Your task to perform on an android device: read, delete, or share a saved page in the chrome app Image 0: 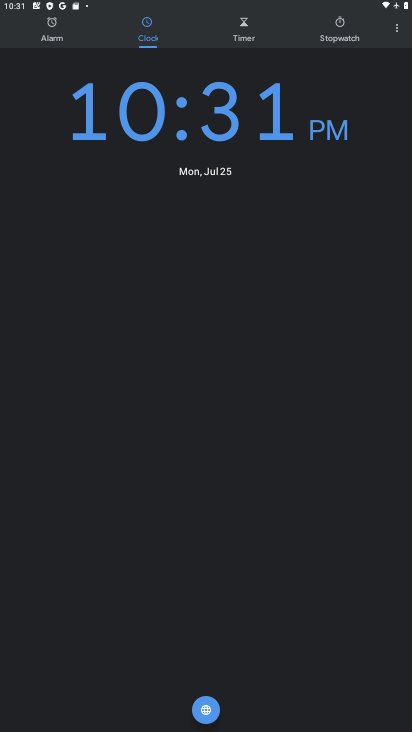
Step 0: press home button
Your task to perform on an android device: read, delete, or share a saved page in the chrome app Image 1: 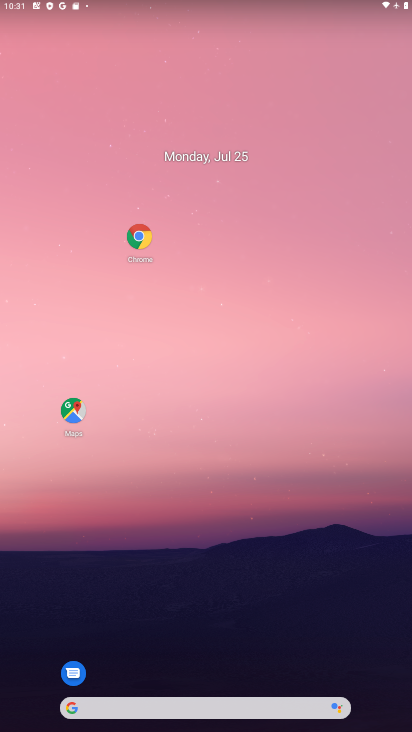
Step 1: click (129, 234)
Your task to perform on an android device: read, delete, or share a saved page in the chrome app Image 2: 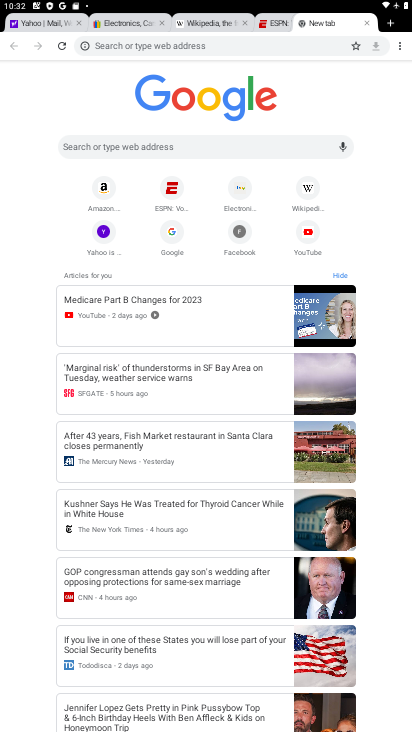
Step 2: click (408, 44)
Your task to perform on an android device: read, delete, or share a saved page in the chrome app Image 3: 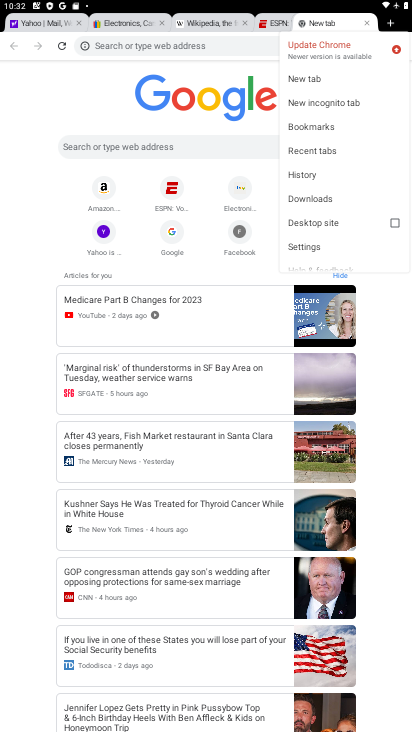
Step 3: click (334, 207)
Your task to perform on an android device: read, delete, or share a saved page in the chrome app Image 4: 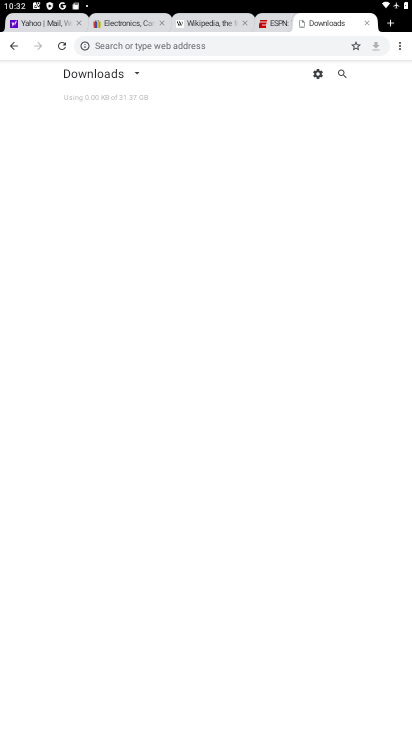
Step 4: task complete